Your task to perform on an android device: Open Wikipedia Image 0: 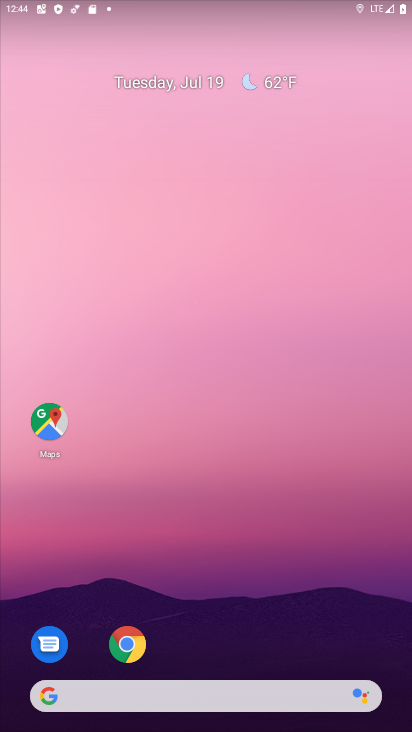
Step 0: click (117, 641)
Your task to perform on an android device: Open Wikipedia Image 1: 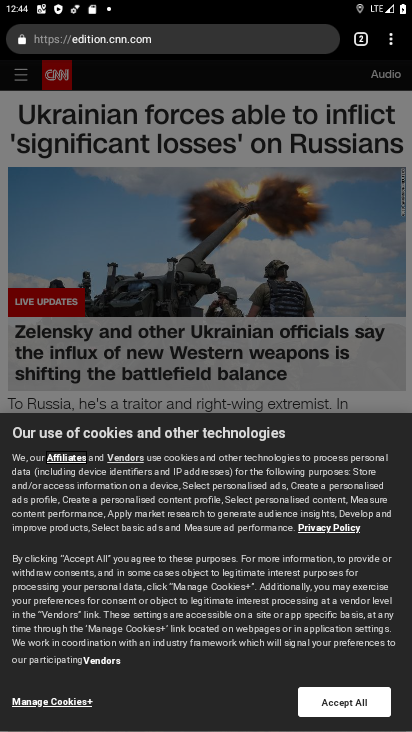
Step 1: click (393, 45)
Your task to perform on an android device: Open Wikipedia Image 2: 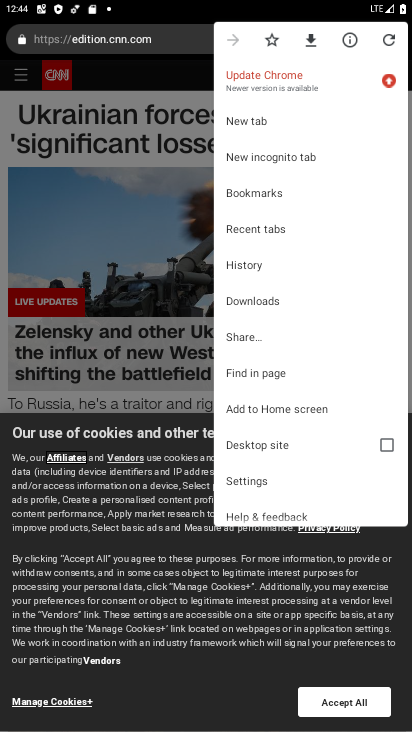
Step 2: click (257, 117)
Your task to perform on an android device: Open Wikipedia Image 3: 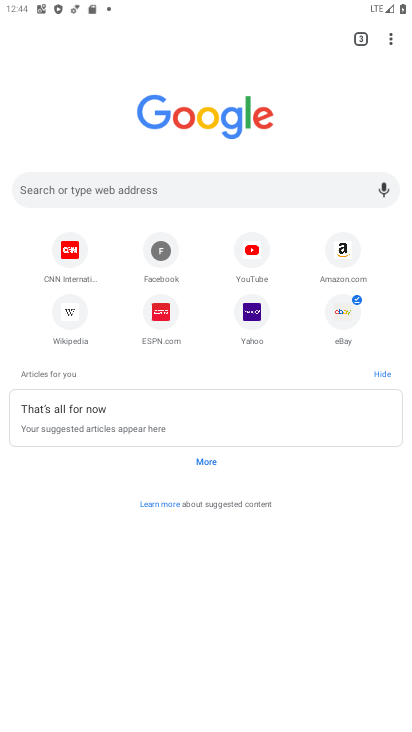
Step 3: click (68, 306)
Your task to perform on an android device: Open Wikipedia Image 4: 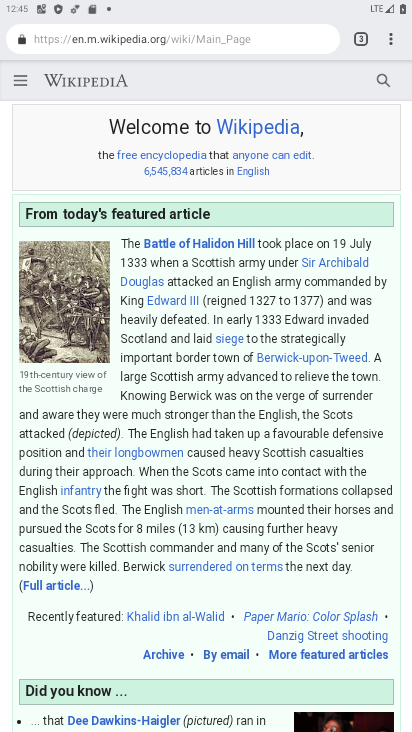
Step 4: task complete